Your task to perform on an android device: Search for sushi restaurants on Maps Image 0: 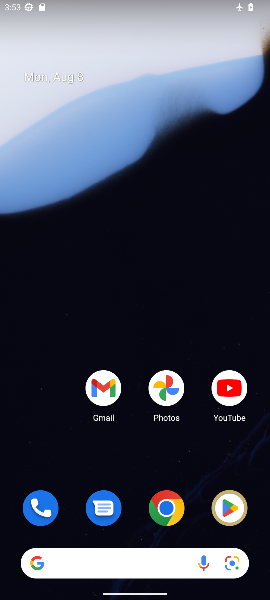
Step 0: drag from (138, 481) to (113, 57)
Your task to perform on an android device: Search for sushi restaurants on Maps Image 1: 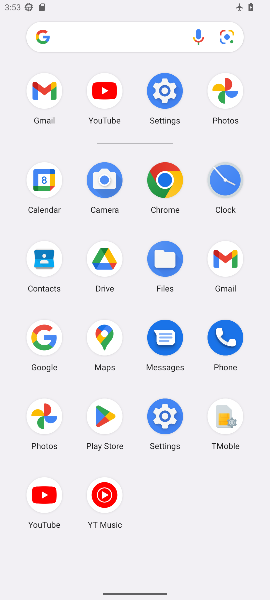
Step 1: click (100, 340)
Your task to perform on an android device: Search for sushi restaurants on Maps Image 2: 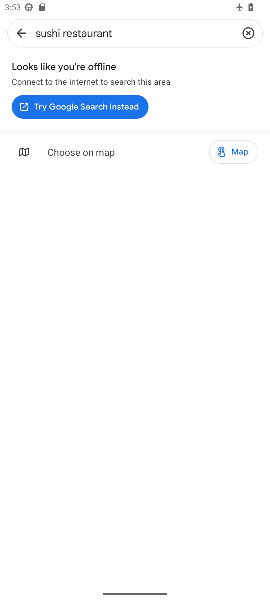
Step 2: click (144, 33)
Your task to perform on an android device: Search for sushi restaurants on Maps Image 3: 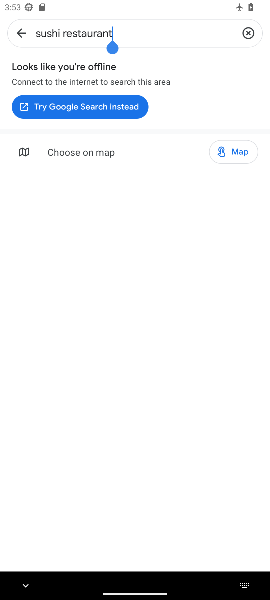
Step 3: click (20, 30)
Your task to perform on an android device: Search for sushi restaurants on Maps Image 4: 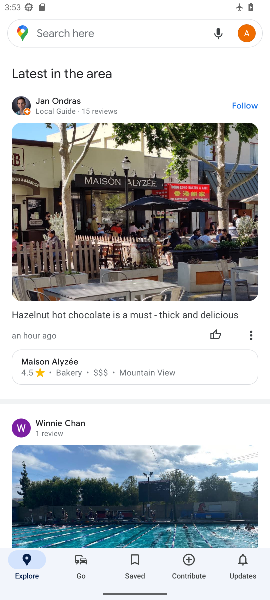
Step 4: click (71, 28)
Your task to perform on an android device: Search for sushi restaurants on Maps Image 5: 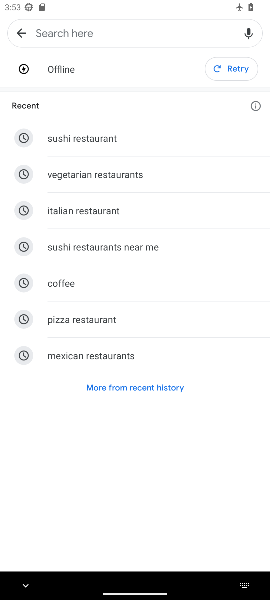
Step 5: click (80, 139)
Your task to perform on an android device: Search for sushi restaurants on Maps Image 6: 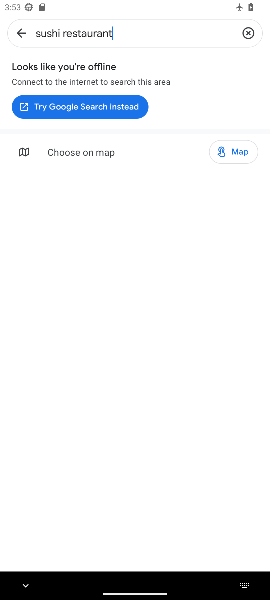
Step 6: task complete